Your task to perform on an android device: Open the calendar app, open the side menu, and click the "Day" option Image 0: 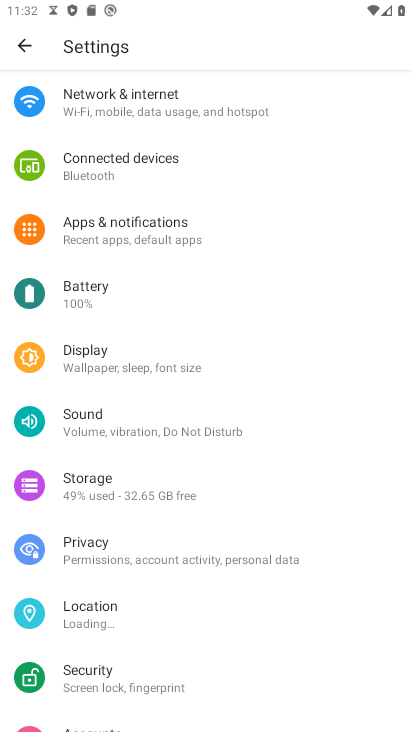
Step 0: press home button
Your task to perform on an android device: Open the calendar app, open the side menu, and click the "Day" option Image 1: 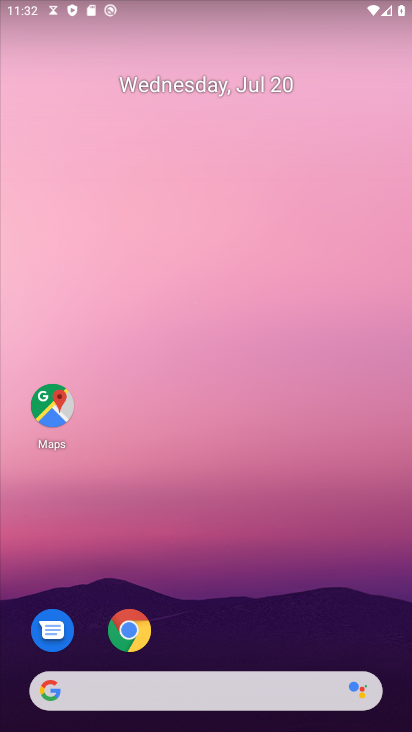
Step 1: drag from (238, 226) to (242, 17)
Your task to perform on an android device: Open the calendar app, open the side menu, and click the "Day" option Image 2: 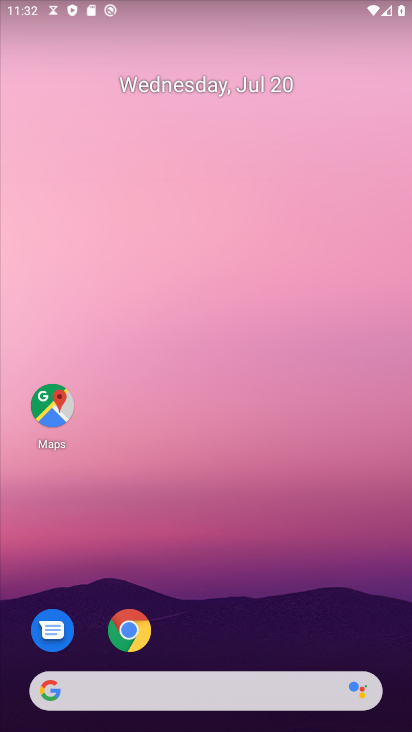
Step 2: drag from (28, 672) to (295, 84)
Your task to perform on an android device: Open the calendar app, open the side menu, and click the "Day" option Image 3: 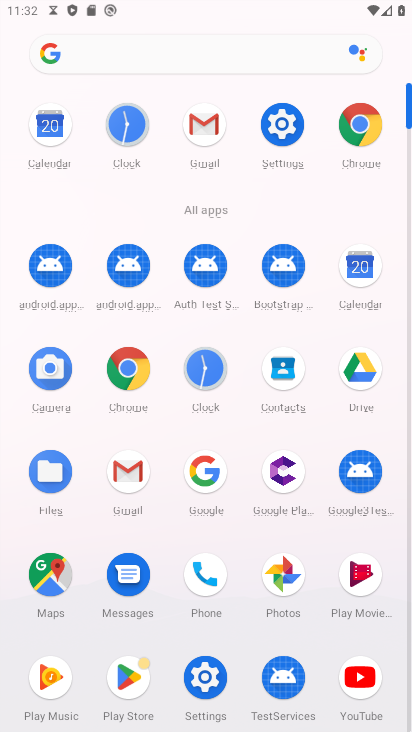
Step 3: click (349, 275)
Your task to perform on an android device: Open the calendar app, open the side menu, and click the "Day" option Image 4: 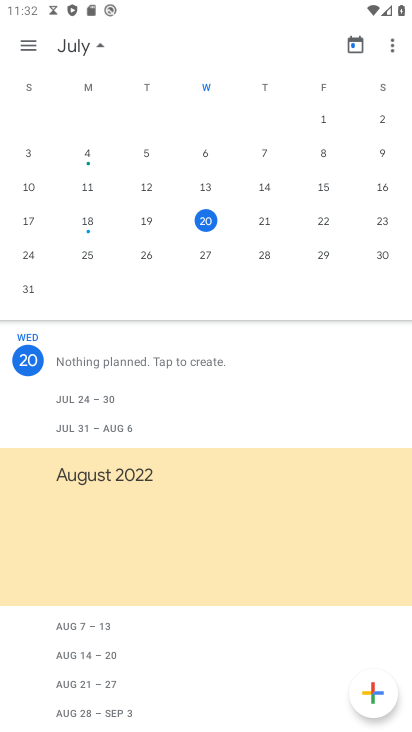
Step 4: click (36, 47)
Your task to perform on an android device: Open the calendar app, open the side menu, and click the "Day" option Image 5: 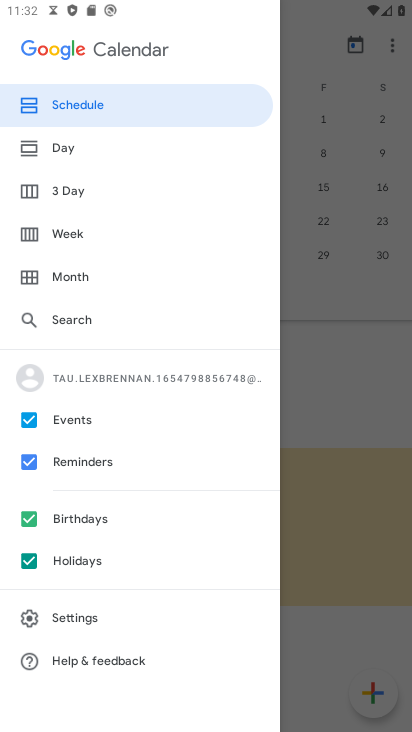
Step 5: click (68, 146)
Your task to perform on an android device: Open the calendar app, open the side menu, and click the "Day" option Image 6: 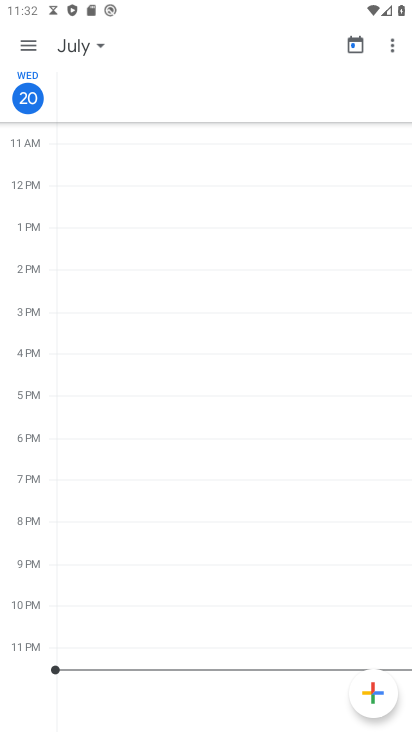
Step 6: task complete